Your task to perform on an android device: Go to privacy settings Image 0: 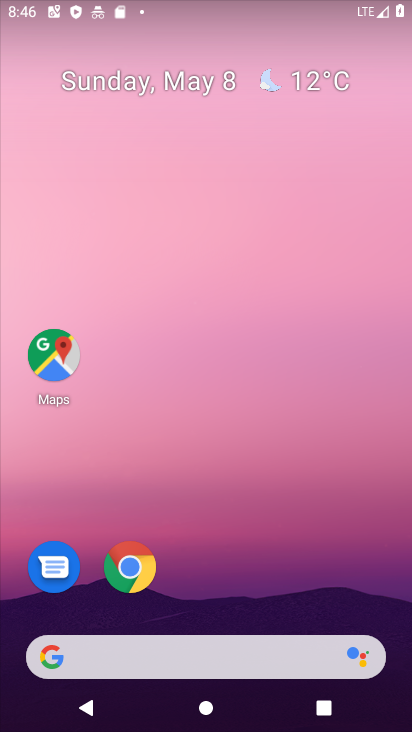
Step 0: drag from (197, 666) to (125, 130)
Your task to perform on an android device: Go to privacy settings Image 1: 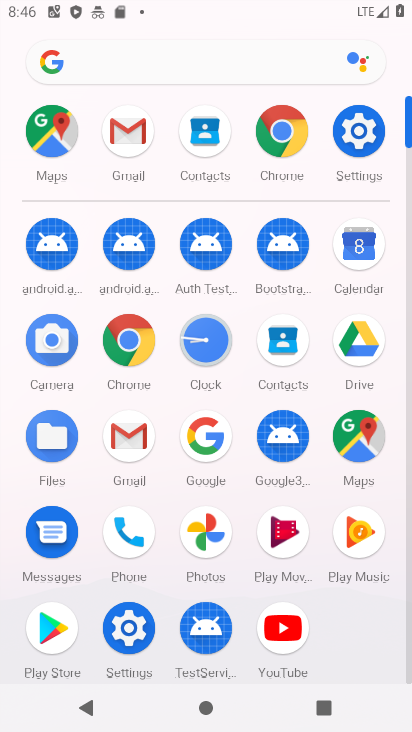
Step 1: click (361, 119)
Your task to perform on an android device: Go to privacy settings Image 2: 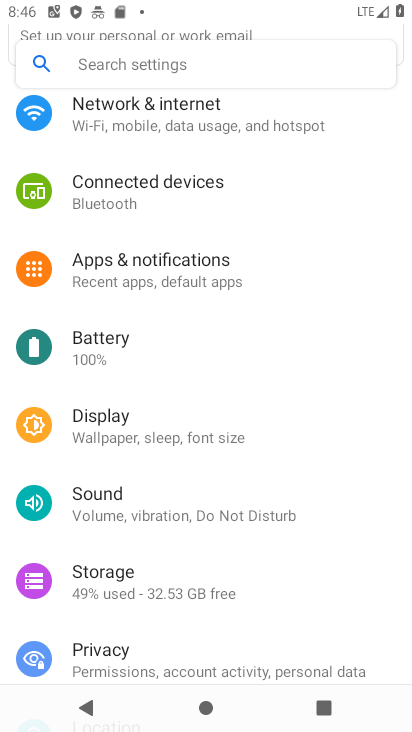
Step 2: click (114, 664)
Your task to perform on an android device: Go to privacy settings Image 3: 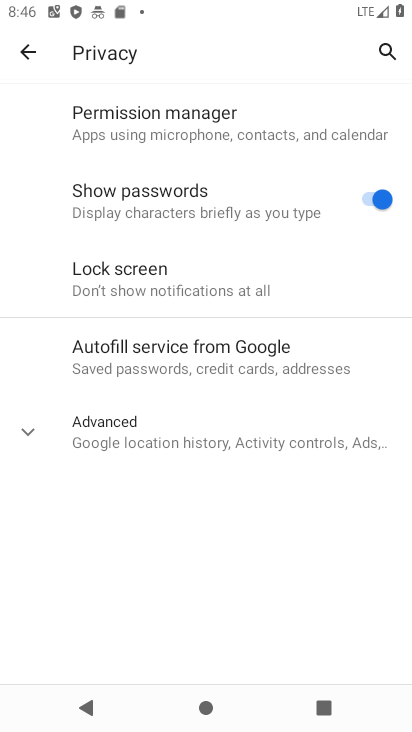
Step 3: task complete